Your task to perform on an android device: Do I have any events this weekend? Image 0: 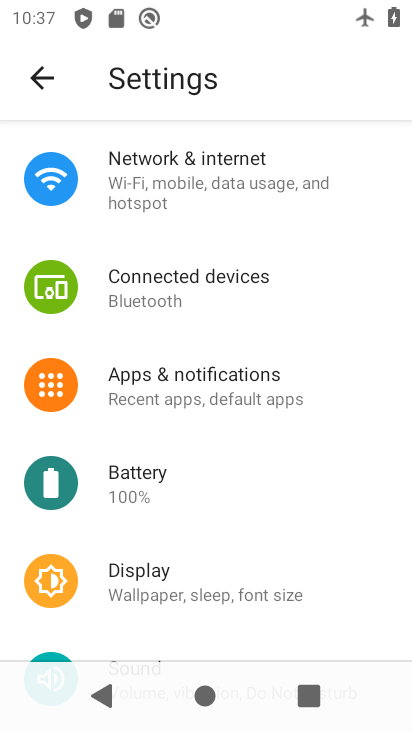
Step 0: press back button
Your task to perform on an android device: Do I have any events this weekend? Image 1: 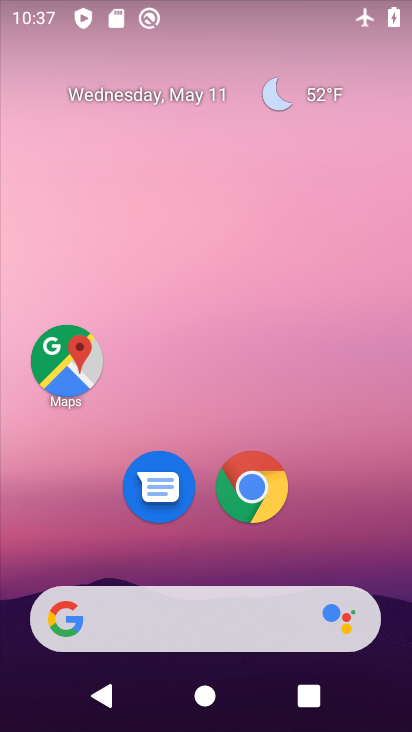
Step 1: drag from (345, 517) to (286, 2)
Your task to perform on an android device: Do I have any events this weekend? Image 2: 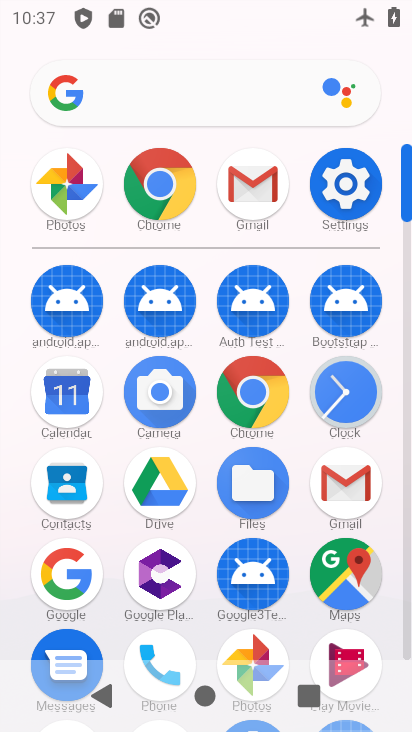
Step 2: click (63, 389)
Your task to perform on an android device: Do I have any events this weekend? Image 3: 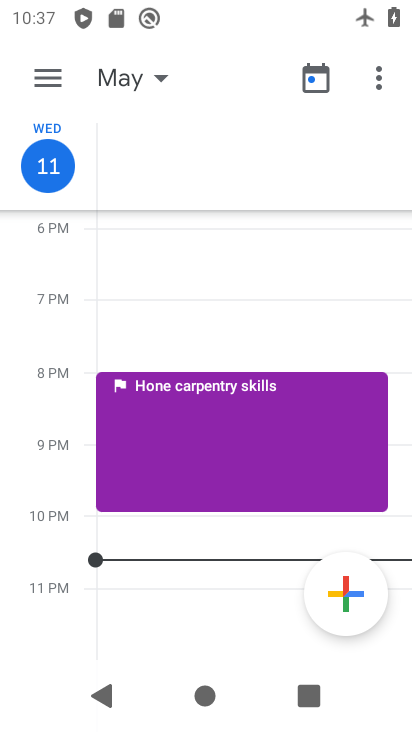
Step 3: click (52, 77)
Your task to perform on an android device: Do I have any events this weekend? Image 4: 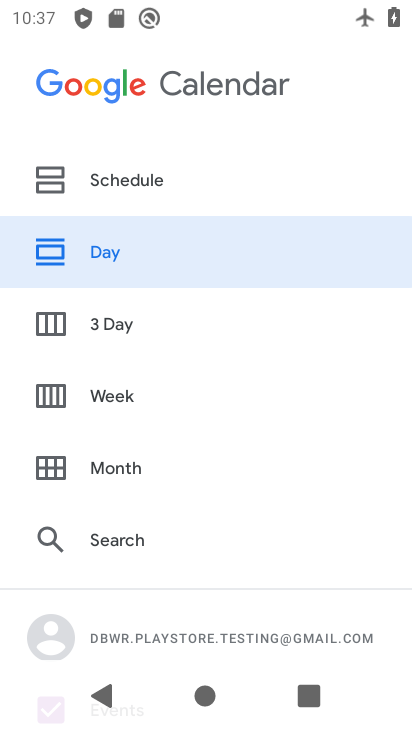
Step 4: click (123, 394)
Your task to perform on an android device: Do I have any events this weekend? Image 5: 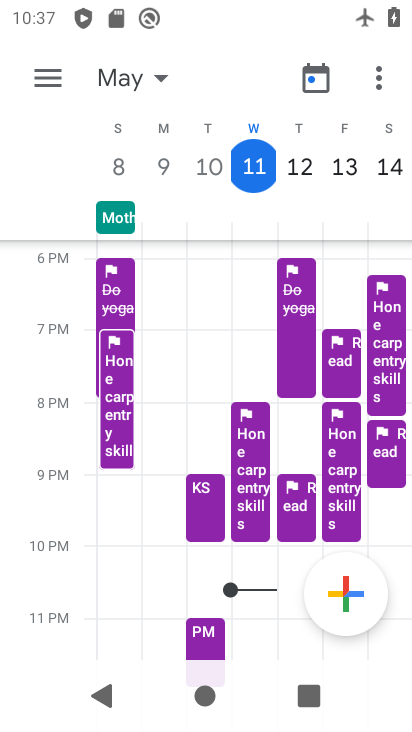
Step 5: click (385, 164)
Your task to perform on an android device: Do I have any events this weekend? Image 6: 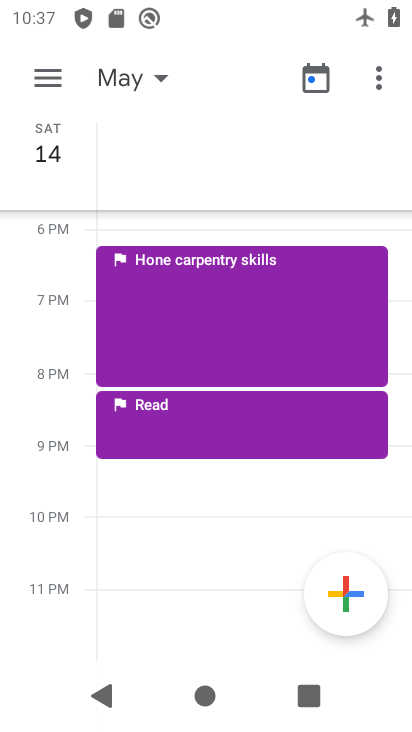
Step 6: task complete